Your task to perform on an android device: Open calendar and show me the second week of next month Image 0: 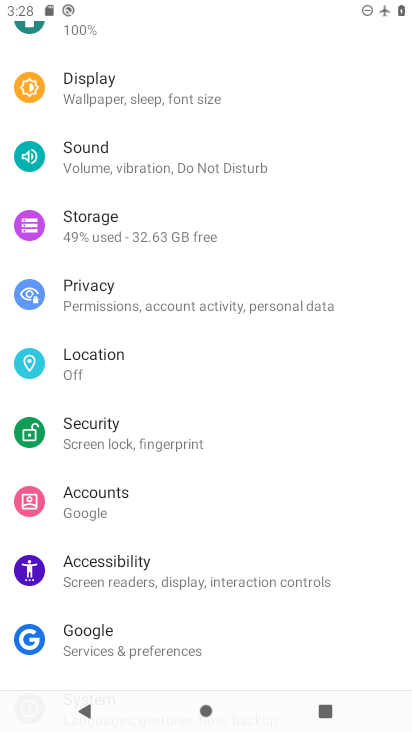
Step 0: press home button
Your task to perform on an android device: Open calendar and show me the second week of next month Image 1: 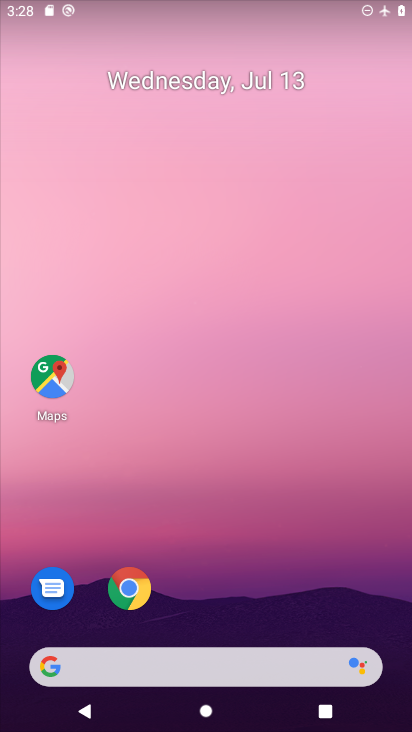
Step 1: drag from (226, 629) to (202, 79)
Your task to perform on an android device: Open calendar and show me the second week of next month Image 2: 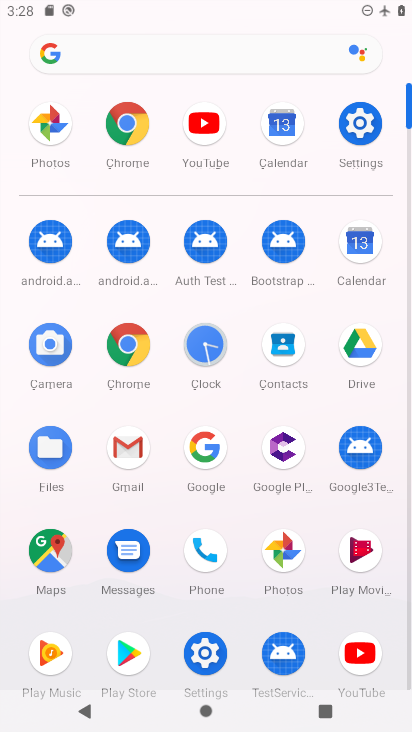
Step 2: click (365, 245)
Your task to perform on an android device: Open calendar and show me the second week of next month Image 3: 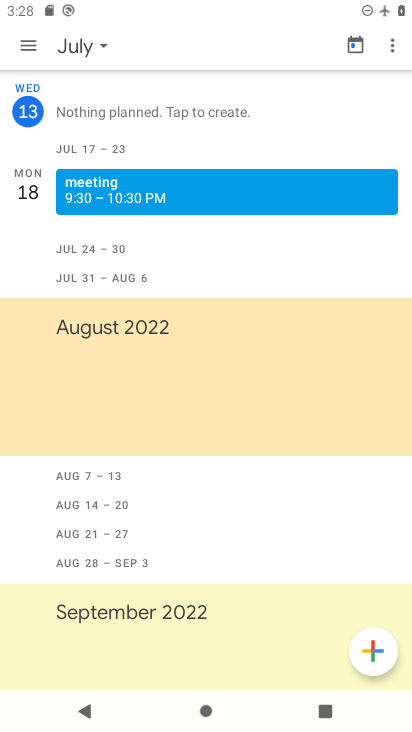
Step 3: click (21, 50)
Your task to perform on an android device: Open calendar and show me the second week of next month Image 4: 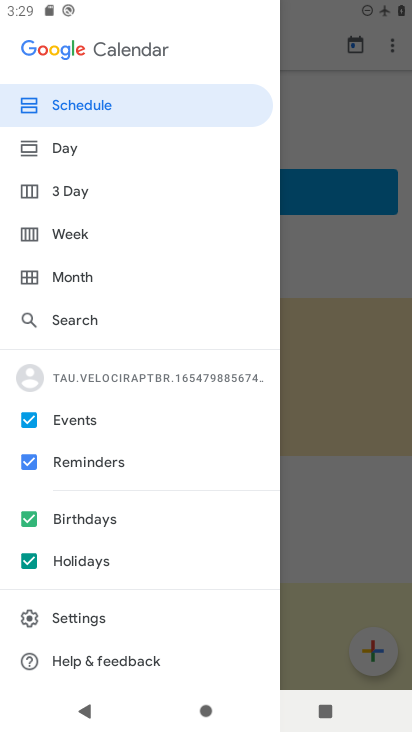
Step 4: click (71, 234)
Your task to perform on an android device: Open calendar and show me the second week of next month Image 5: 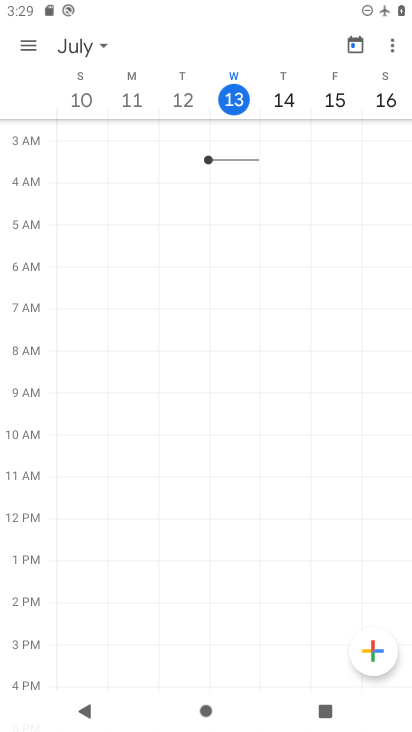
Step 5: task complete